Your task to perform on an android device: choose inbox layout in the gmail app Image 0: 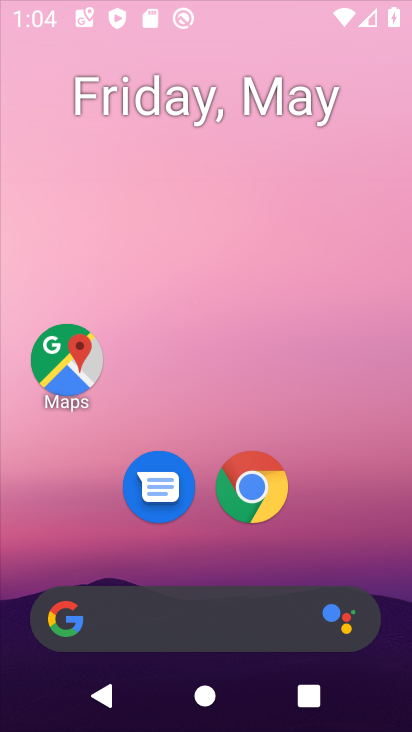
Step 0: click (271, 472)
Your task to perform on an android device: choose inbox layout in the gmail app Image 1: 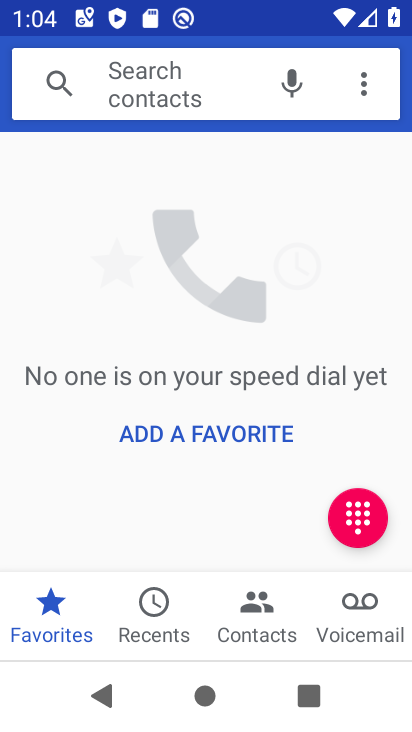
Step 1: drag from (287, 17) to (224, 512)
Your task to perform on an android device: choose inbox layout in the gmail app Image 2: 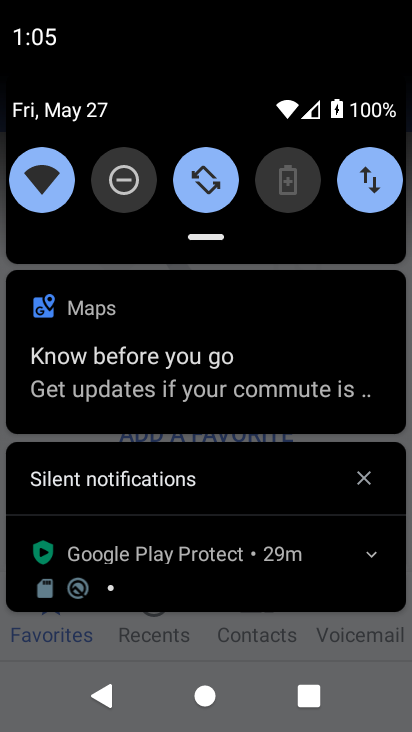
Step 2: press home button
Your task to perform on an android device: choose inbox layout in the gmail app Image 3: 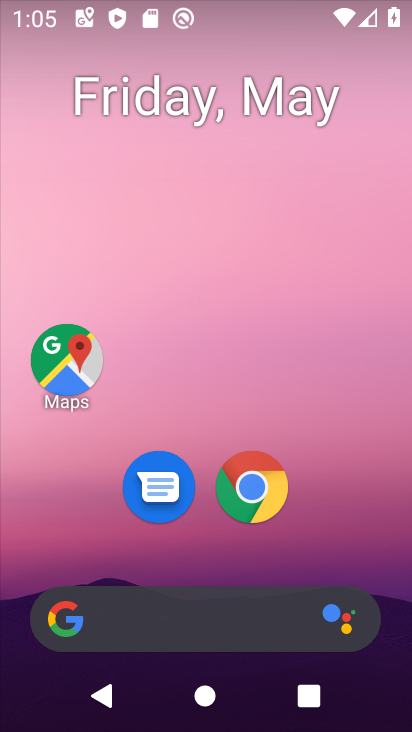
Step 3: drag from (206, 556) to (191, 119)
Your task to perform on an android device: choose inbox layout in the gmail app Image 4: 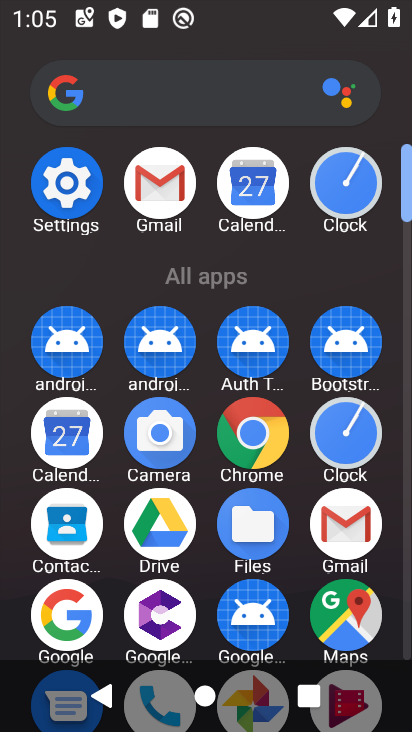
Step 4: click (161, 165)
Your task to perform on an android device: choose inbox layout in the gmail app Image 5: 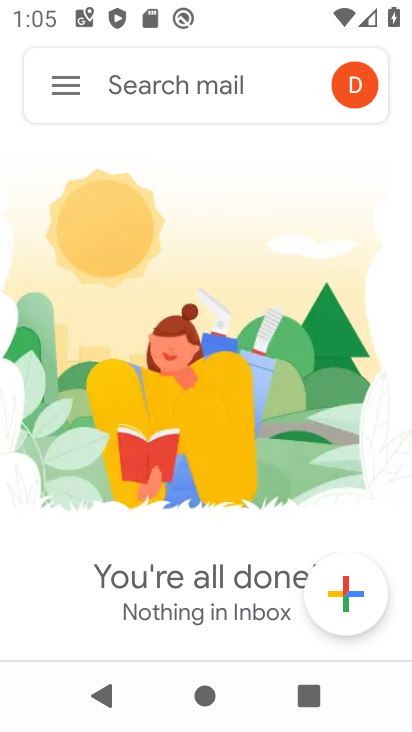
Step 5: click (70, 77)
Your task to perform on an android device: choose inbox layout in the gmail app Image 6: 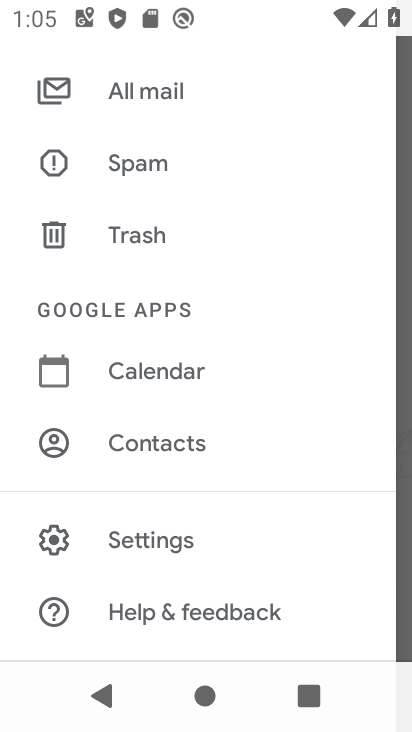
Step 6: click (99, 544)
Your task to perform on an android device: choose inbox layout in the gmail app Image 7: 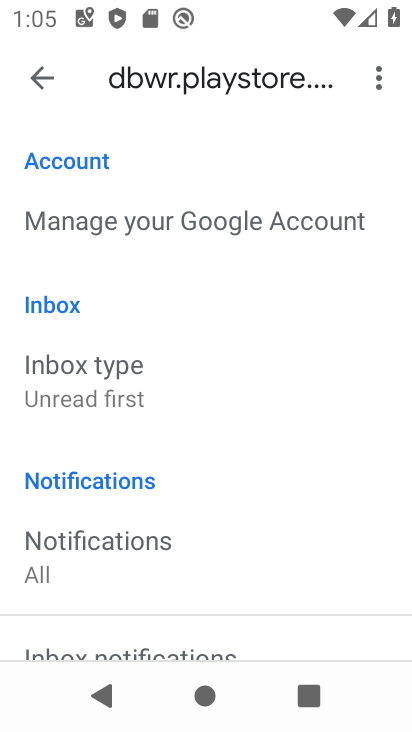
Step 7: click (189, 373)
Your task to perform on an android device: choose inbox layout in the gmail app Image 8: 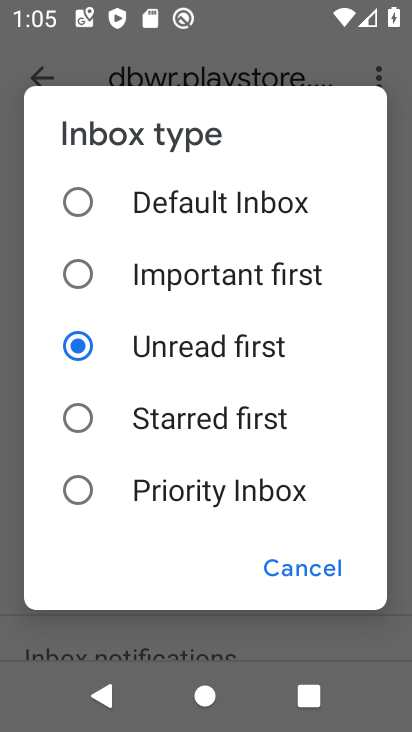
Step 8: click (213, 445)
Your task to perform on an android device: choose inbox layout in the gmail app Image 9: 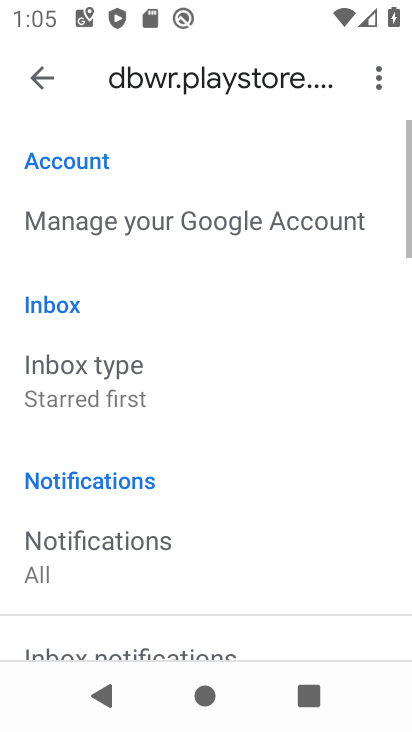
Step 9: task complete